Your task to perform on an android device: open a bookmark in the chrome app Image 0: 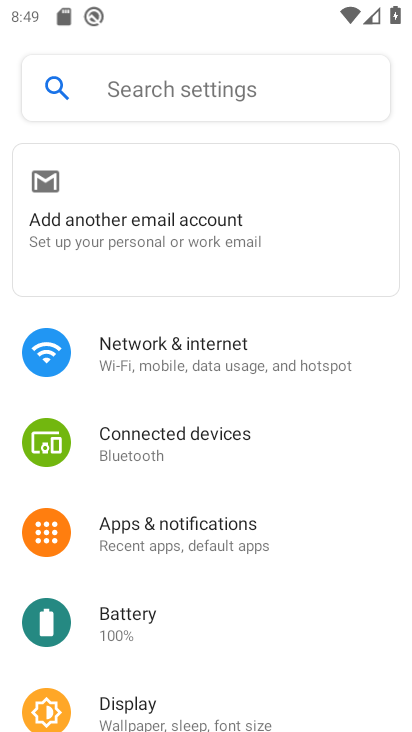
Step 0: press home button
Your task to perform on an android device: open a bookmark in the chrome app Image 1: 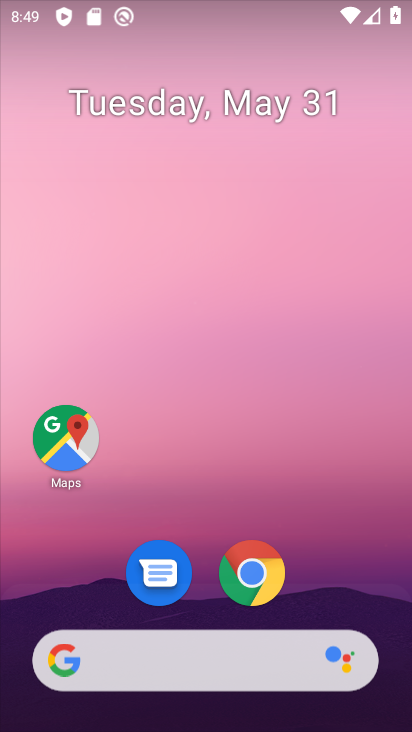
Step 1: drag from (336, 588) to (296, 143)
Your task to perform on an android device: open a bookmark in the chrome app Image 2: 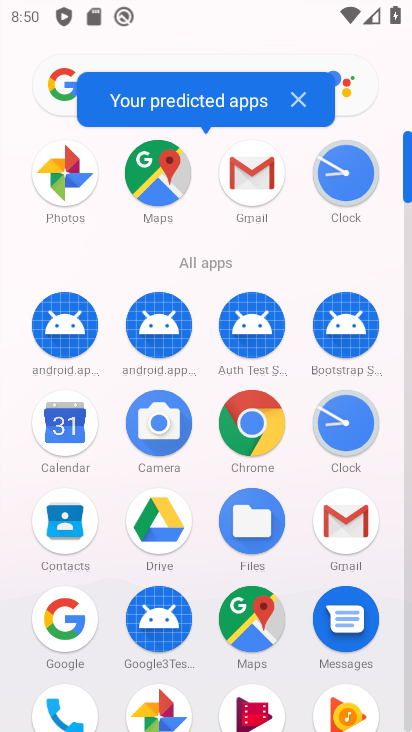
Step 2: click (254, 420)
Your task to perform on an android device: open a bookmark in the chrome app Image 3: 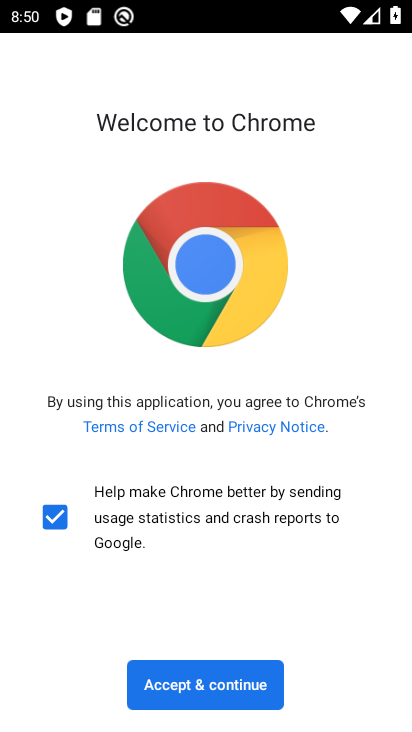
Step 3: click (205, 673)
Your task to perform on an android device: open a bookmark in the chrome app Image 4: 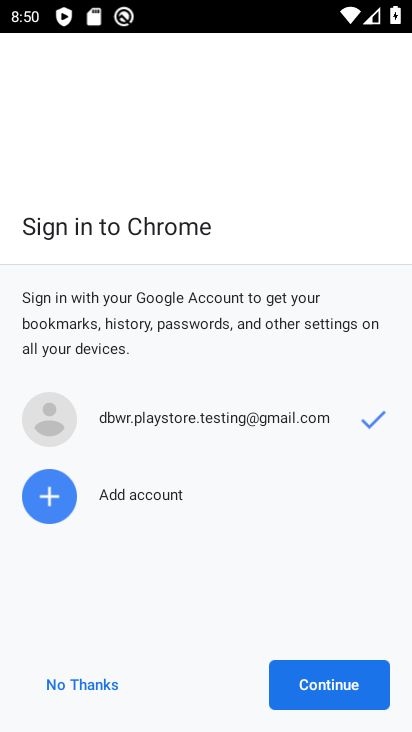
Step 4: click (312, 644)
Your task to perform on an android device: open a bookmark in the chrome app Image 5: 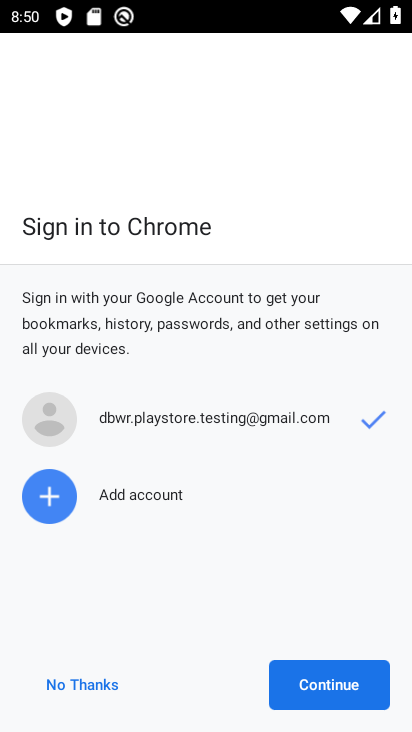
Step 5: click (314, 666)
Your task to perform on an android device: open a bookmark in the chrome app Image 6: 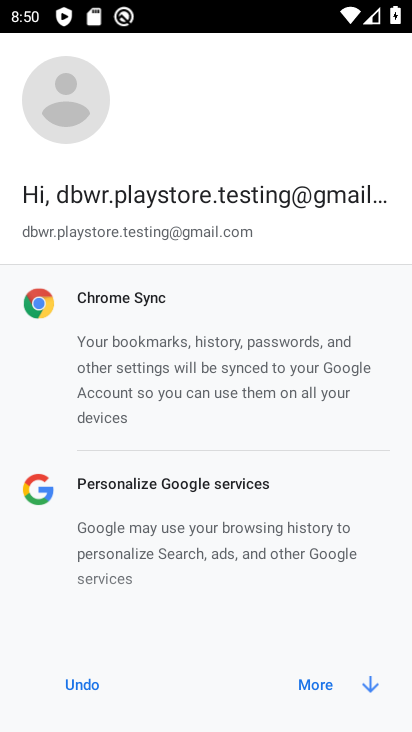
Step 6: click (327, 683)
Your task to perform on an android device: open a bookmark in the chrome app Image 7: 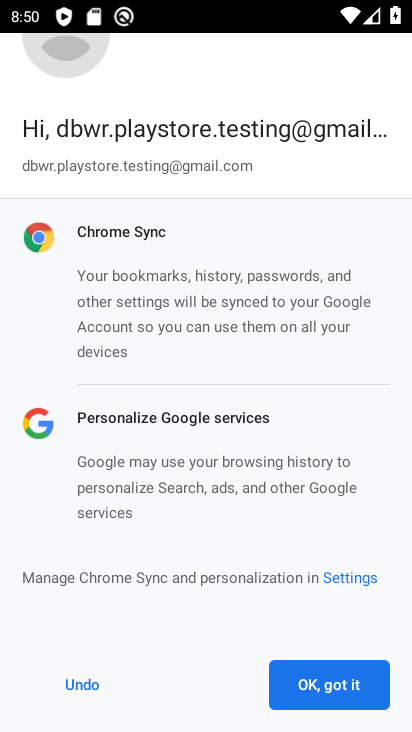
Step 7: click (326, 679)
Your task to perform on an android device: open a bookmark in the chrome app Image 8: 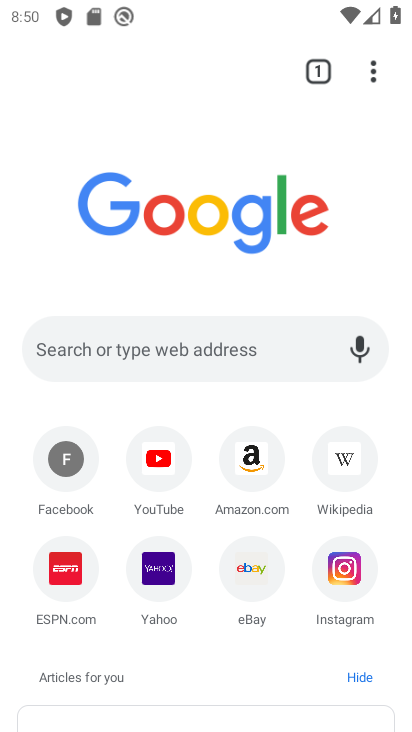
Step 8: task complete